Your task to perform on an android device: toggle sleep mode Image 0: 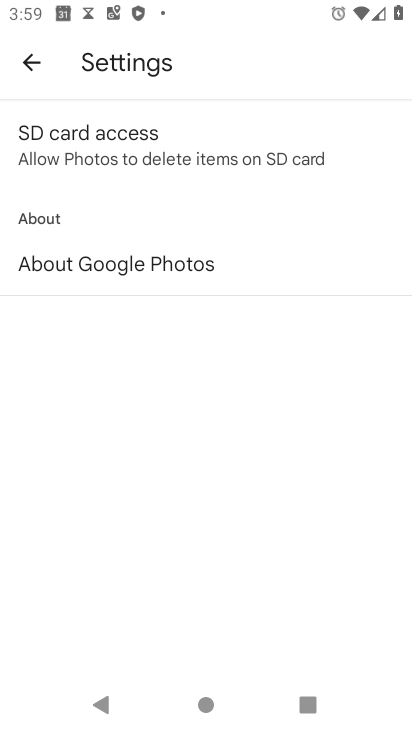
Step 0: press home button
Your task to perform on an android device: toggle sleep mode Image 1: 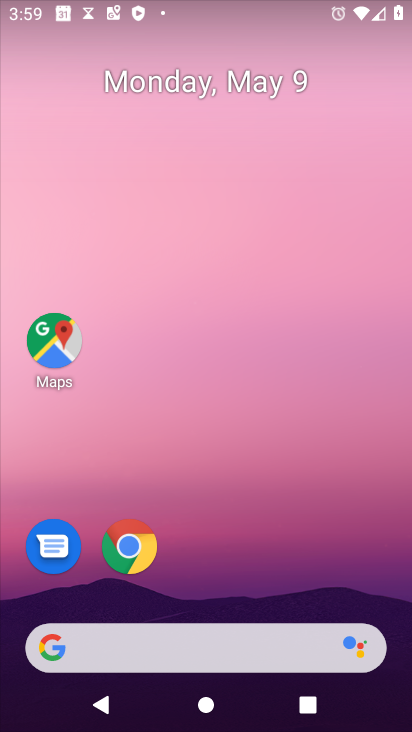
Step 1: drag from (343, 482) to (308, 137)
Your task to perform on an android device: toggle sleep mode Image 2: 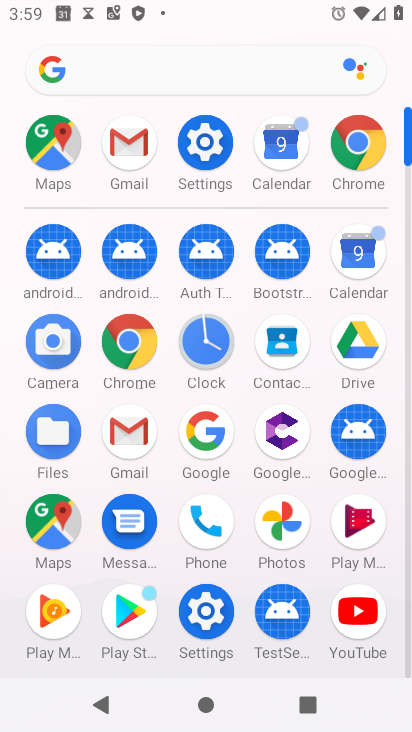
Step 2: click (212, 128)
Your task to perform on an android device: toggle sleep mode Image 3: 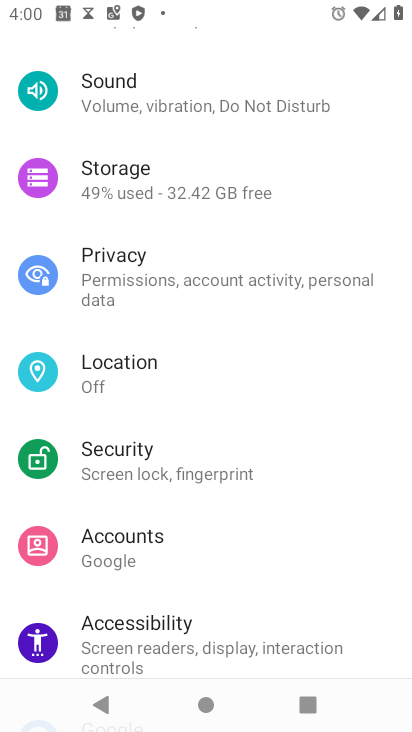
Step 3: drag from (109, 171) to (144, 546)
Your task to perform on an android device: toggle sleep mode Image 4: 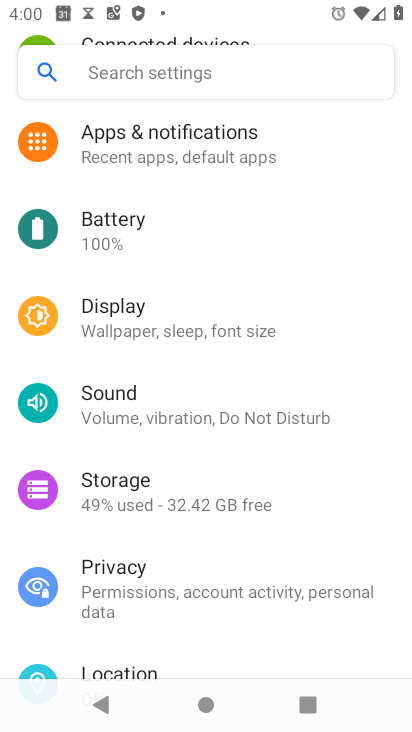
Step 4: click (117, 310)
Your task to perform on an android device: toggle sleep mode Image 5: 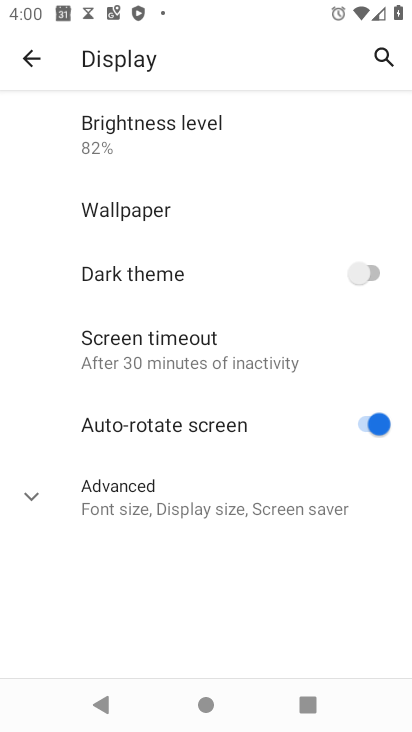
Step 5: click (151, 354)
Your task to perform on an android device: toggle sleep mode Image 6: 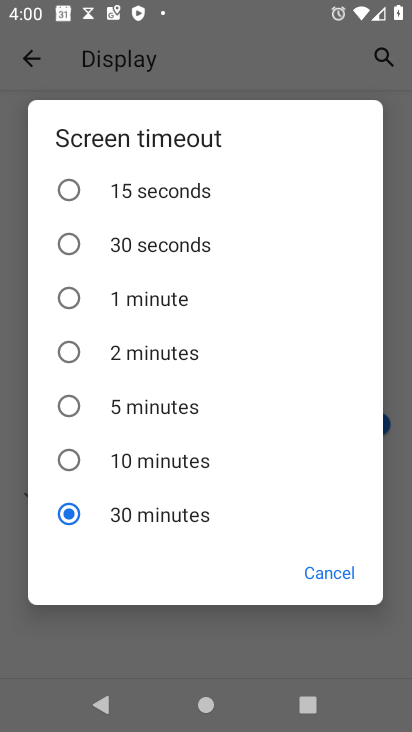
Step 6: click (68, 332)
Your task to perform on an android device: toggle sleep mode Image 7: 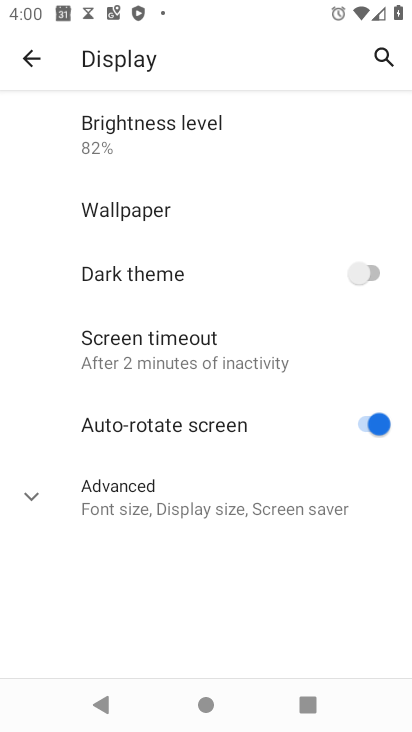
Step 7: task complete